Your task to perform on an android device: toggle notification dots Image 0: 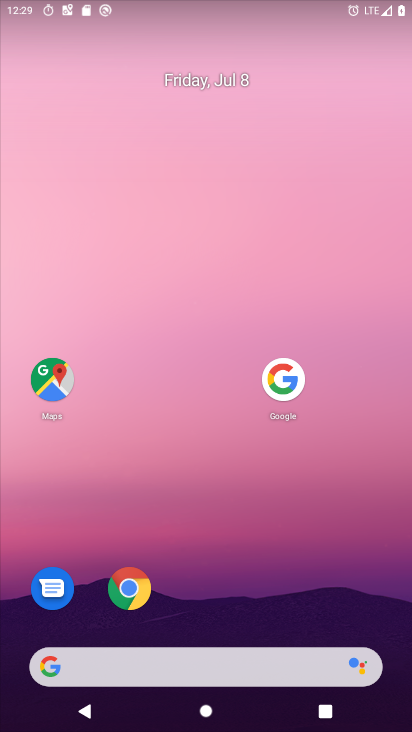
Step 0: drag from (151, 658) to (221, 176)
Your task to perform on an android device: toggle notification dots Image 1: 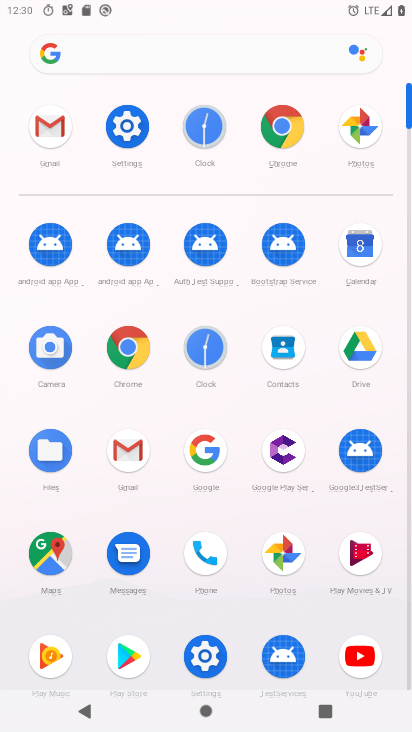
Step 1: click (125, 120)
Your task to perform on an android device: toggle notification dots Image 2: 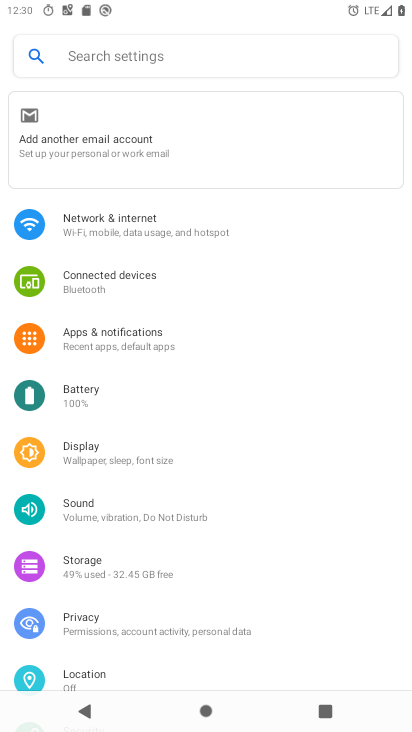
Step 2: click (127, 336)
Your task to perform on an android device: toggle notification dots Image 3: 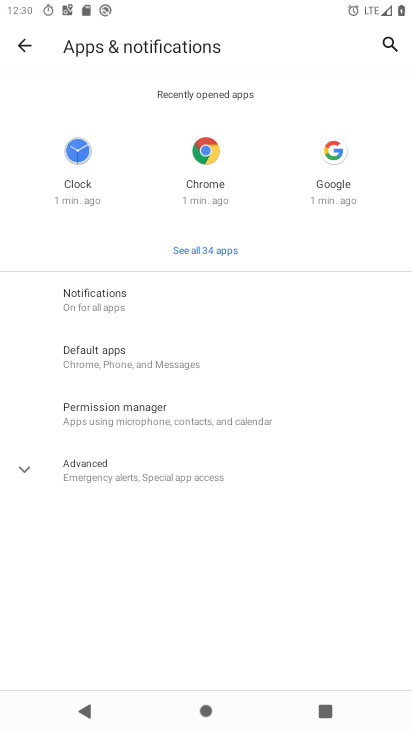
Step 3: click (102, 300)
Your task to perform on an android device: toggle notification dots Image 4: 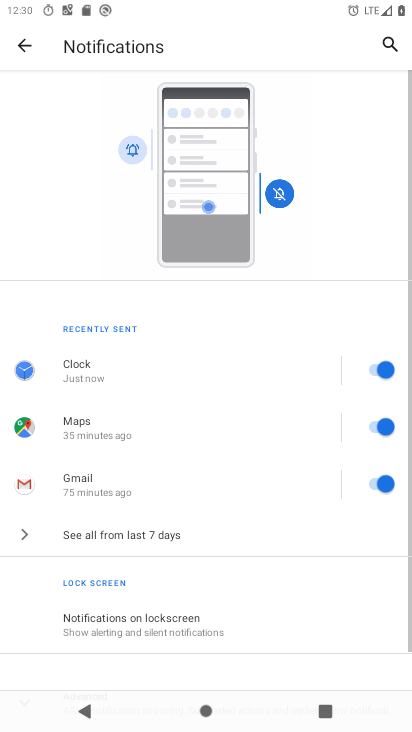
Step 4: drag from (196, 615) to (247, 78)
Your task to perform on an android device: toggle notification dots Image 5: 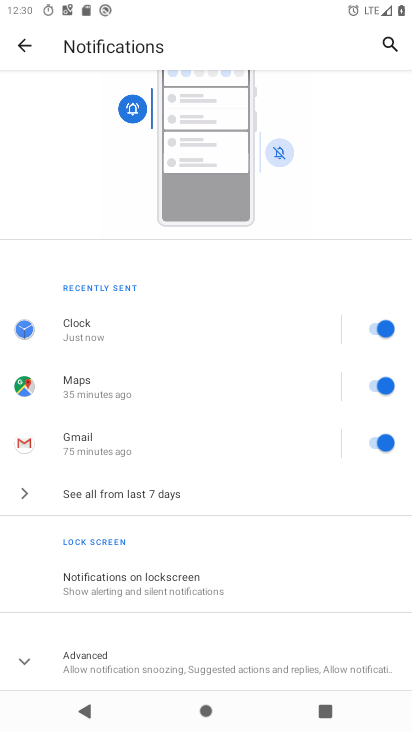
Step 5: click (131, 651)
Your task to perform on an android device: toggle notification dots Image 6: 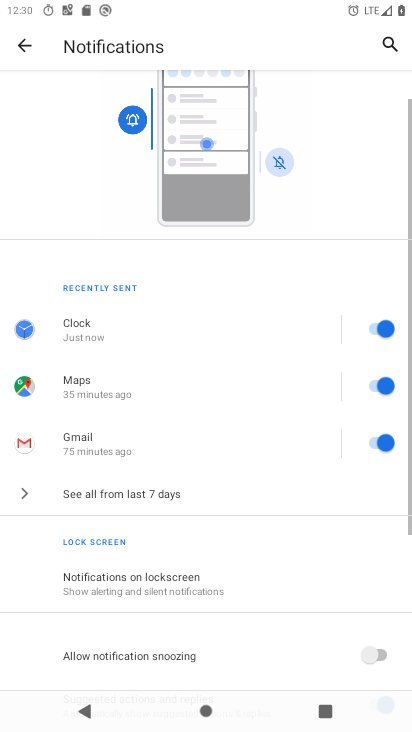
Step 6: drag from (171, 592) to (232, 34)
Your task to perform on an android device: toggle notification dots Image 7: 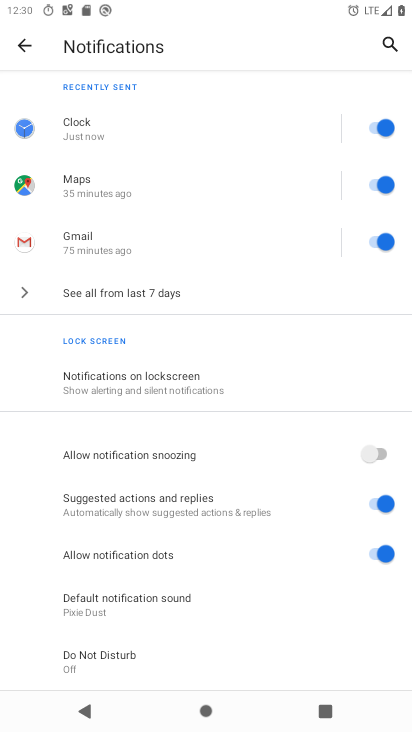
Step 7: click (380, 555)
Your task to perform on an android device: toggle notification dots Image 8: 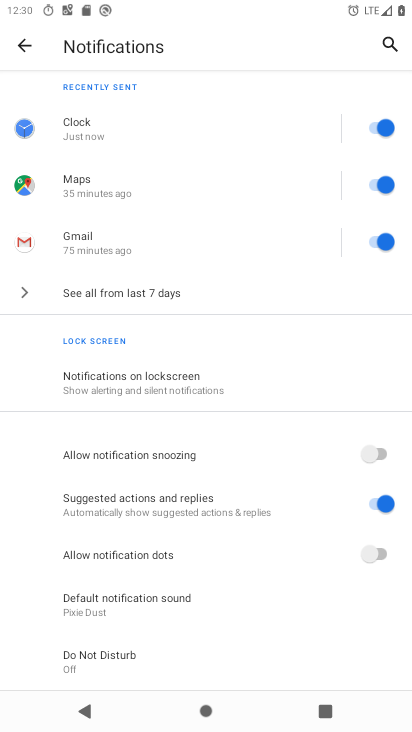
Step 8: task complete